Your task to perform on an android device: open app "Booking.com: Hotels and more" Image 0: 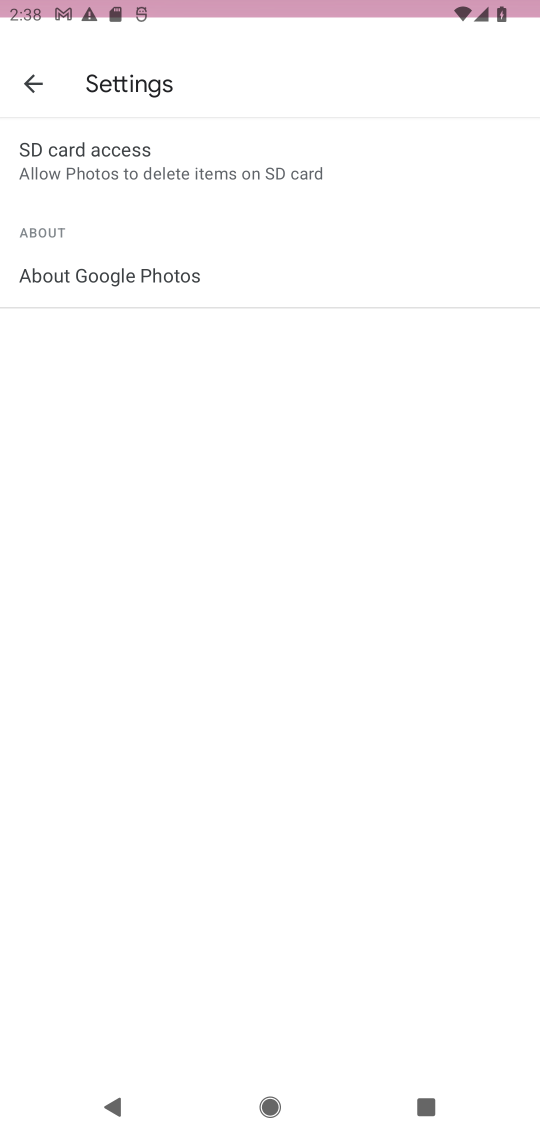
Step 0: press home button
Your task to perform on an android device: open app "Booking.com: Hotels and more" Image 1: 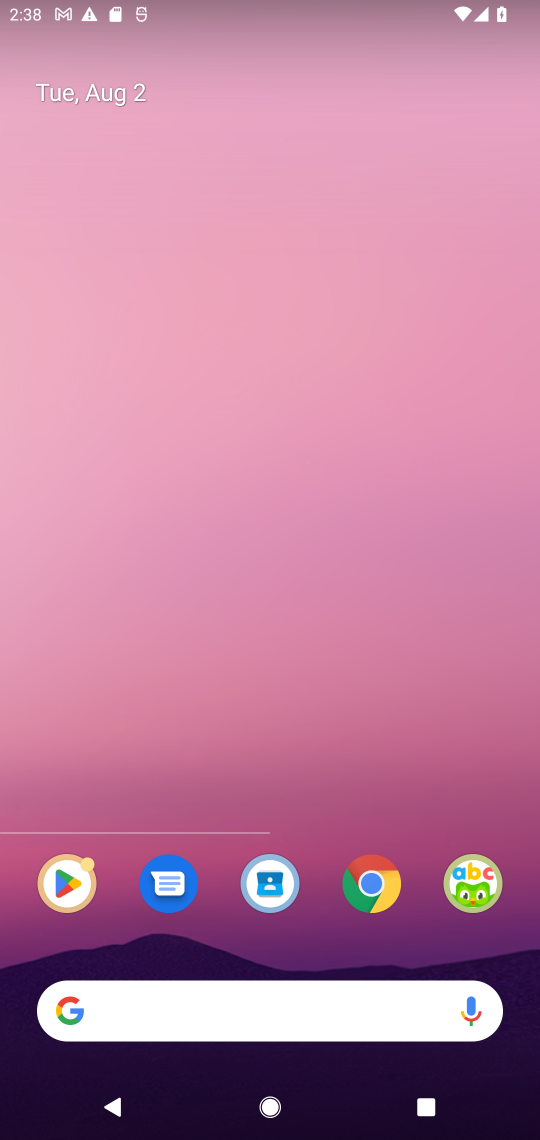
Step 1: drag from (384, 759) to (392, 44)
Your task to perform on an android device: open app "Booking.com: Hotels and more" Image 2: 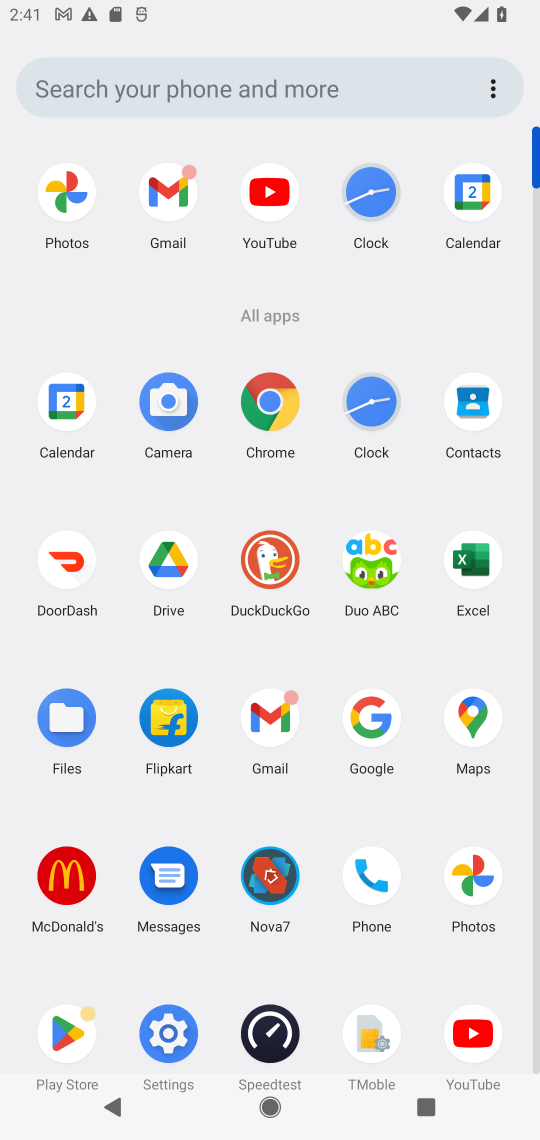
Step 2: click (363, 820)
Your task to perform on an android device: open app "Booking.com: Hotels and more" Image 3: 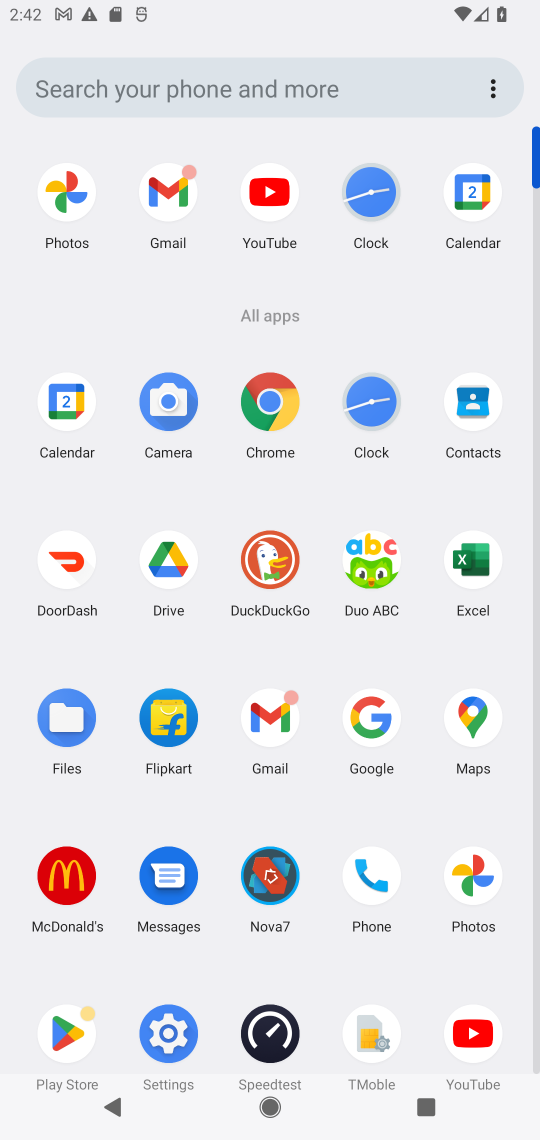
Step 3: click (56, 1017)
Your task to perform on an android device: open app "Booking.com: Hotels and more" Image 4: 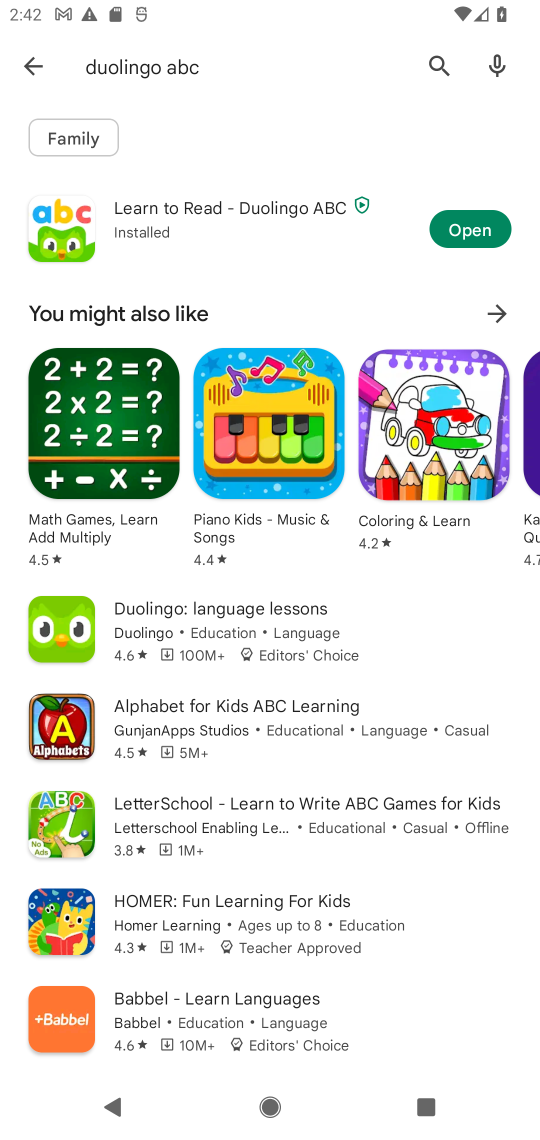
Step 4: click (432, 77)
Your task to perform on an android device: open app "Booking.com: Hotels and more" Image 5: 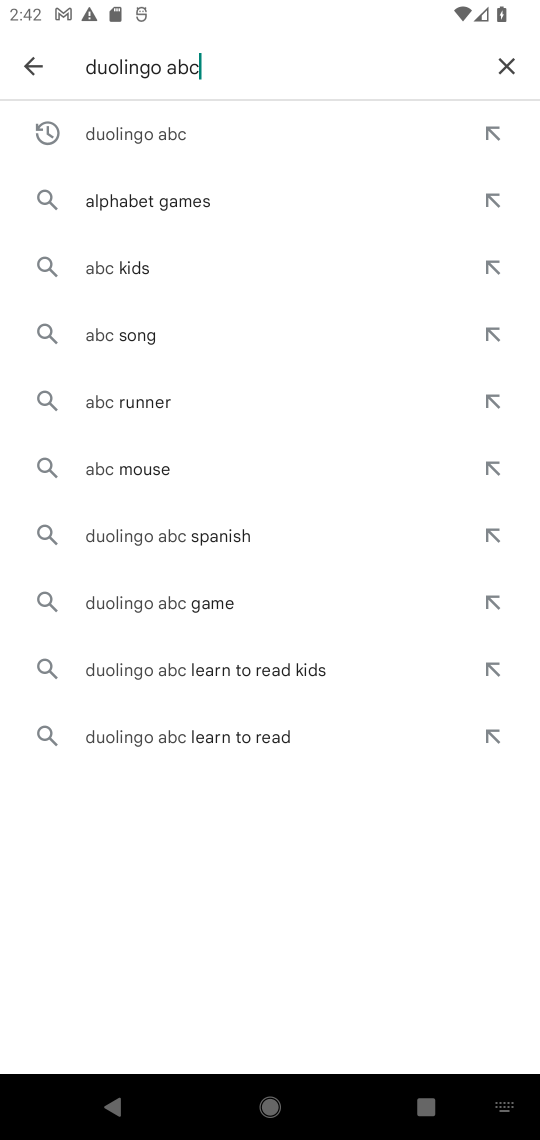
Step 5: click (491, 66)
Your task to perform on an android device: open app "Booking.com: Hotels and more" Image 6: 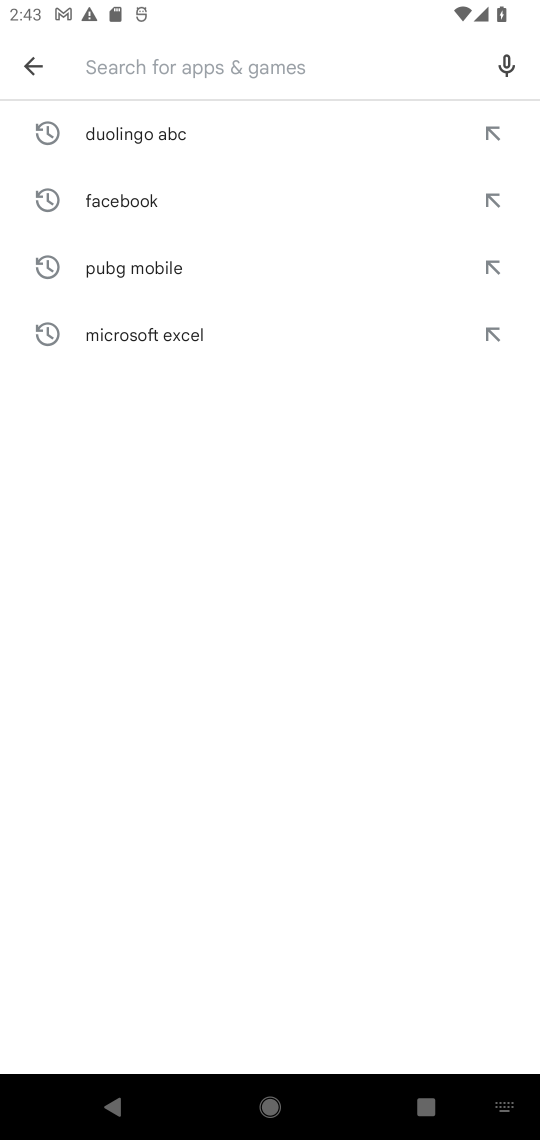
Step 6: click (203, 70)
Your task to perform on an android device: open app "Booking.com: Hotels and more" Image 7: 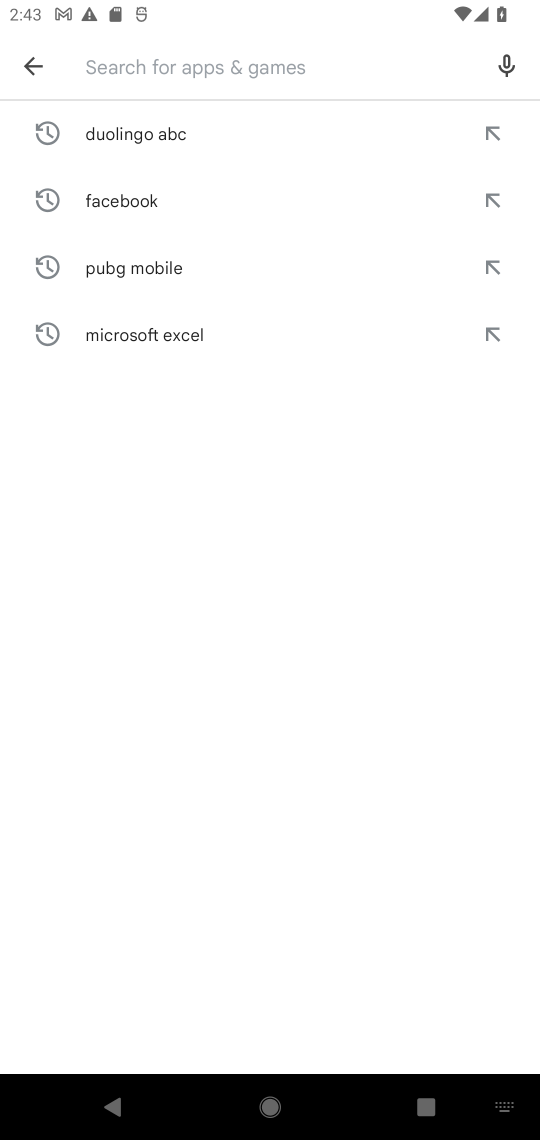
Step 7: type "Booking.com: Hotels and more""
Your task to perform on an android device: open app "Booking.com: Hotels and more" Image 8: 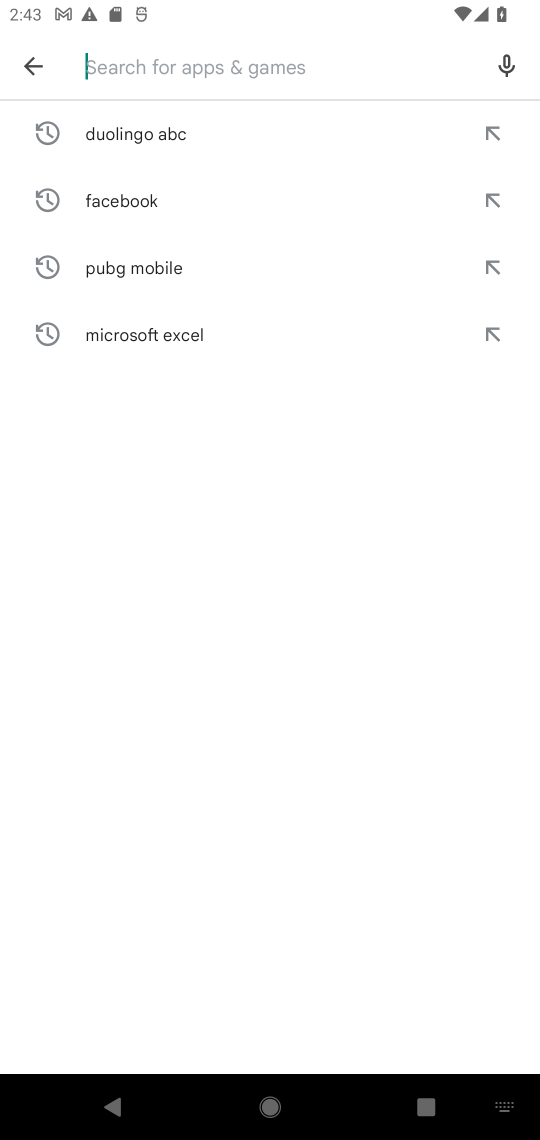
Step 8: type "Booking.com: Hotels and more"
Your task to perform on an android device: open app "Booking.com: Hotels and more" Image 9: 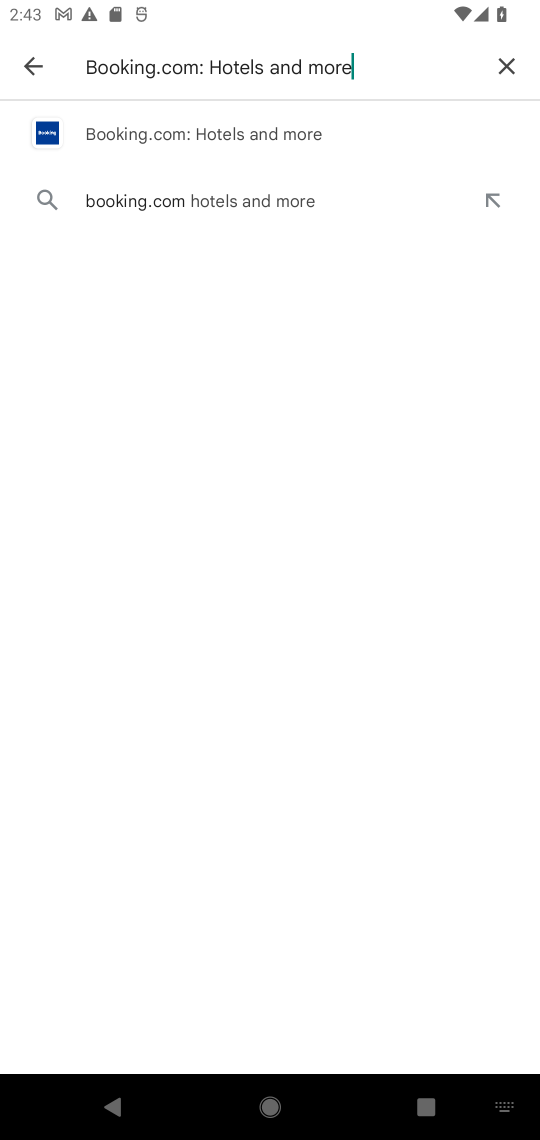
Step 9: click (127, 138)
Your task to perform on an android device: open app "Booking.com: Hotels and more" Image 10: 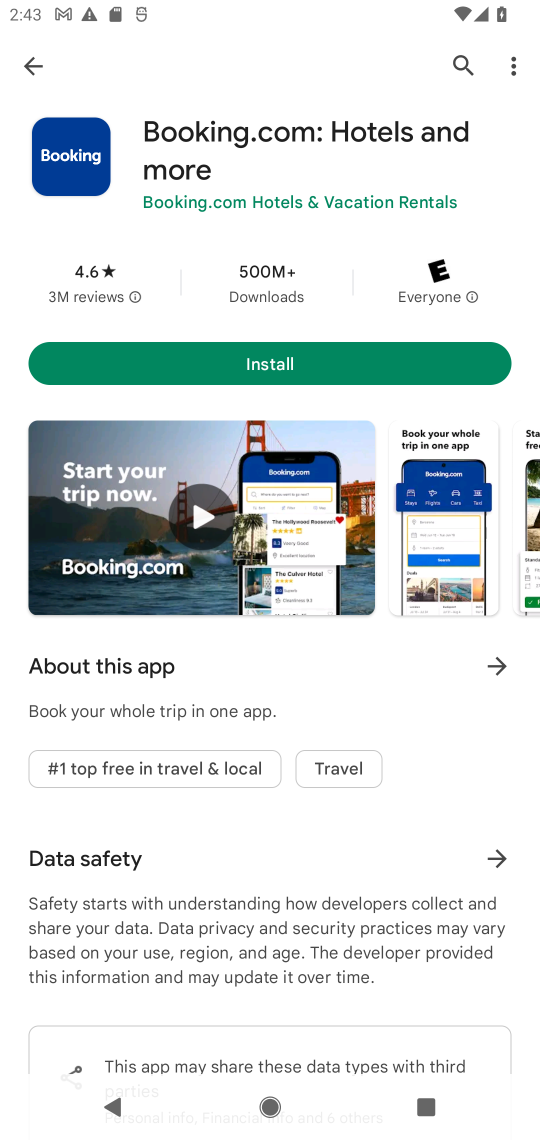
Step 10: press home button
Your task to perform on an android device: open app "Booking.com: Hotels and more" Image 11: 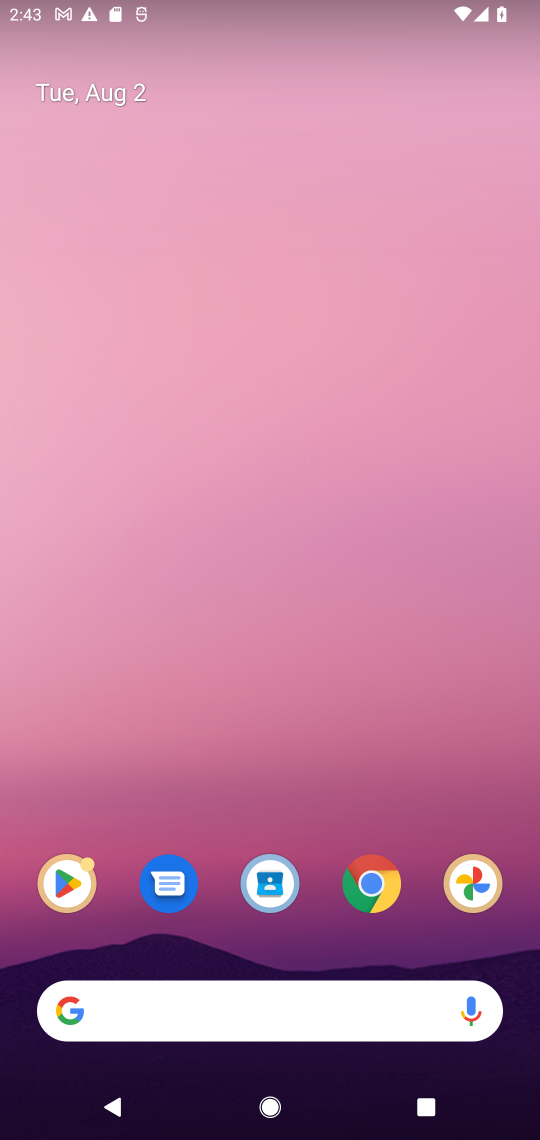
Step 11: click (62, 913)
Your task to perform on an android device: open app "Booking.com: Hotels and more" Image 12: 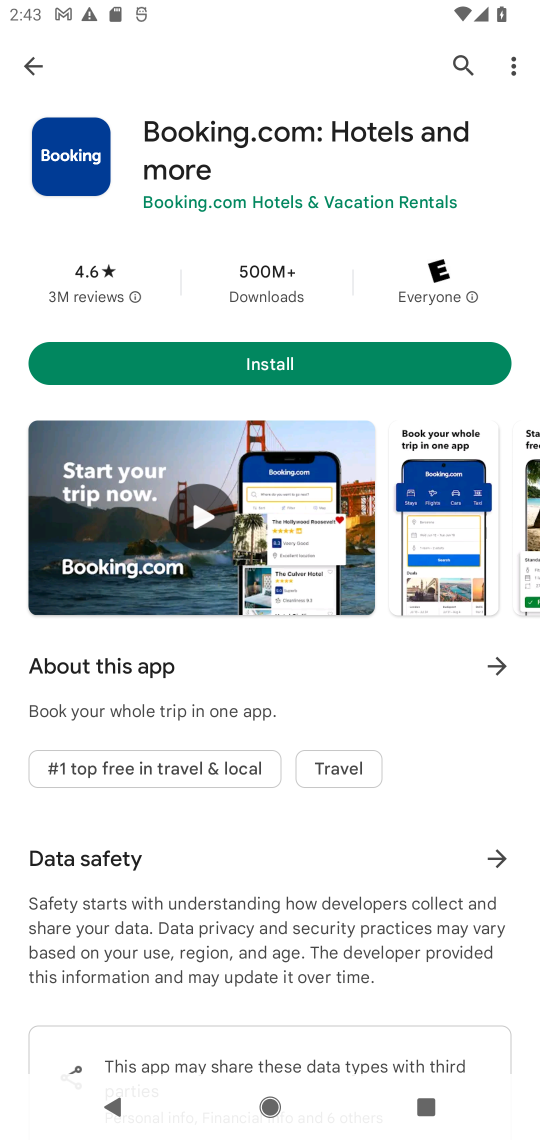
Step 12: task complete